Your task to perform on an android device: Open notification settings Image 0: 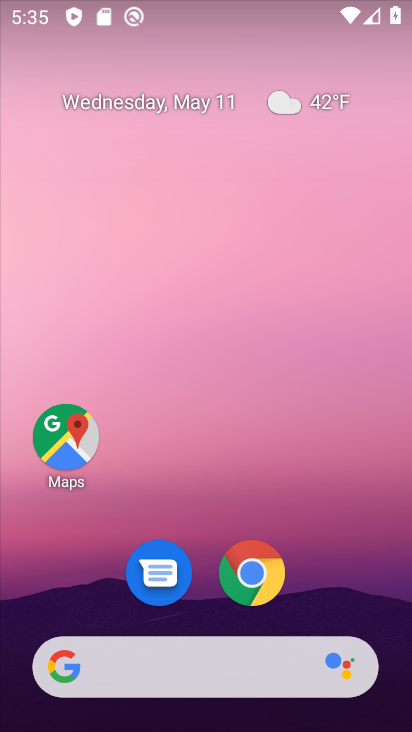
Step 0: drag from (306, 577) to (304, 144)
Your task to perform on an android device: Open notification settings Image 1: 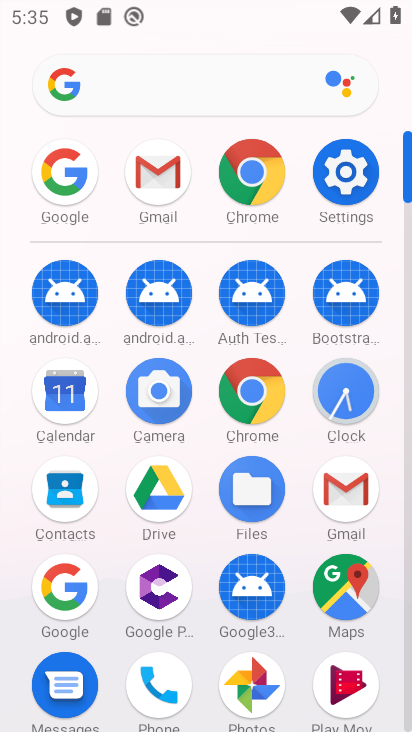
Step 1: click (359, 215)
Your task to perform on an android device: Open notification settings Image 2: 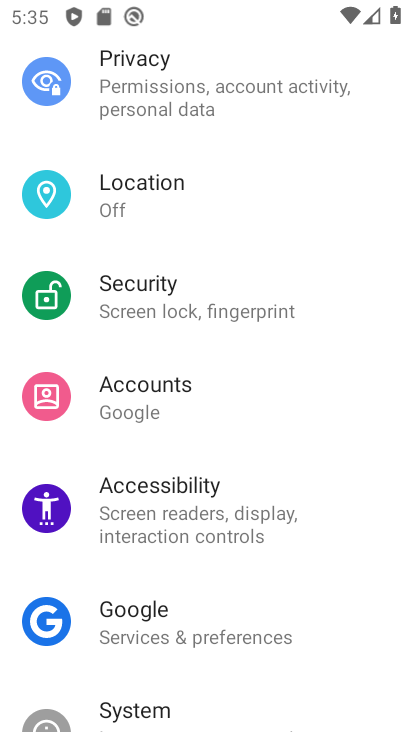
Step 2: drag from (210, 673) to (218, 335)
Your task to perform on an android device: Open notification settings Image 3: 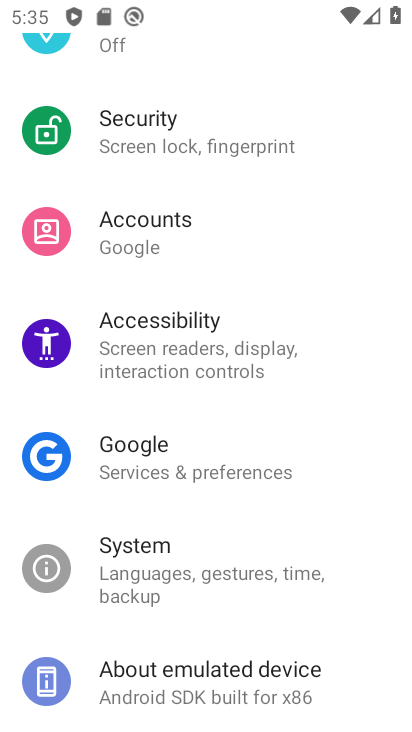
Step 3: drag from (214, 450) to (213, 660)
Your task to perform on an android device: Open notification settings Image 4: 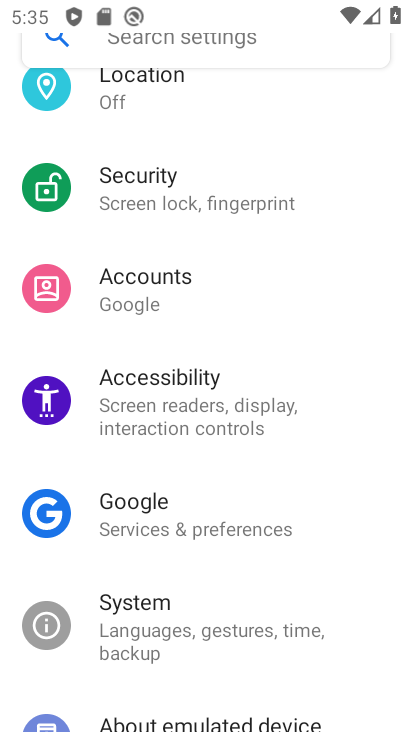
Step 4: drag from (243, 323) to (251, 627)
Your task to perform on an android device: Open notification settings Image 5: 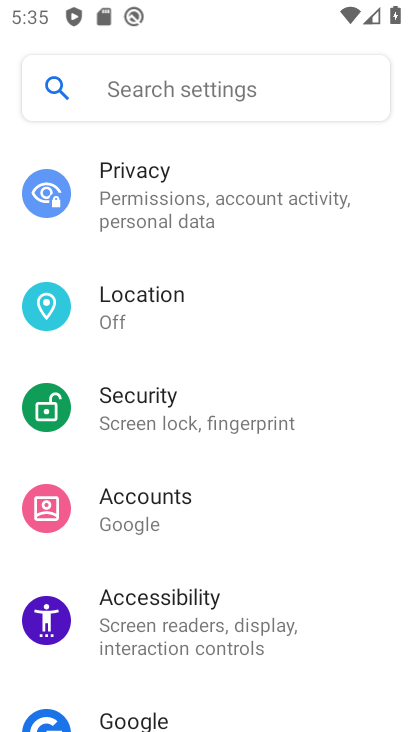
Step 5: drag from (277, 264) to (277, 655)
Your task to perform on an android device: Open notification settings Image 6: 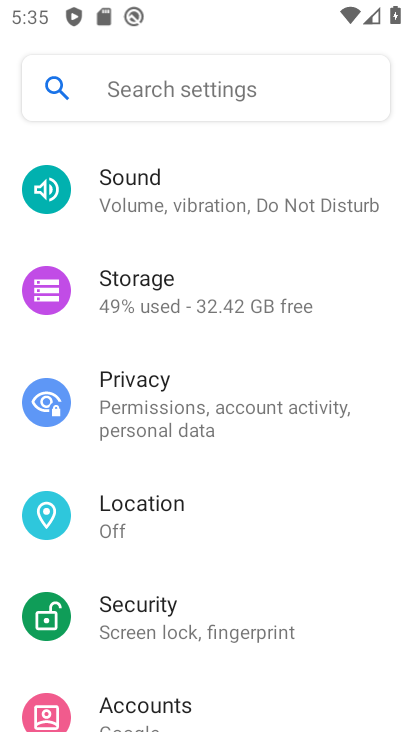
Step 6: drag from (294, 306) to (293, 667)
Your task to perform on an android device: Open notification settings Image 7: 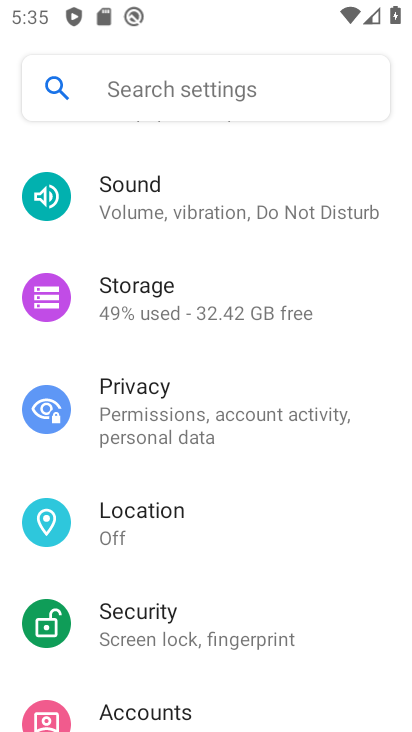
Step 7: drag from (287, 290) to (278, 664)
Your task to perform on an android device: Open notification settings Image 8: 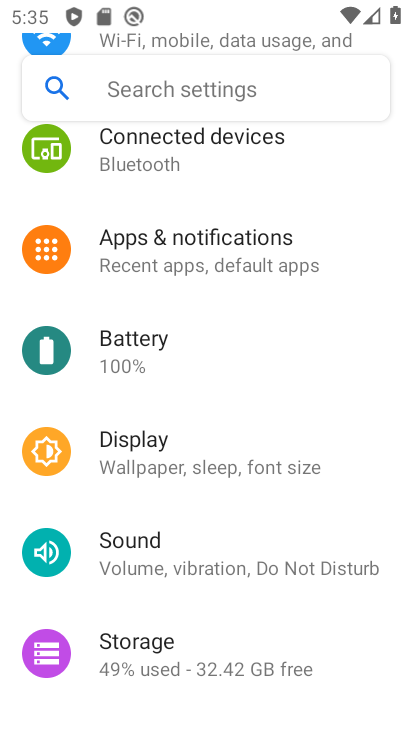
Step 8: click (196, 260)
Your task to perform on an android device: Open notification settings Image 9: 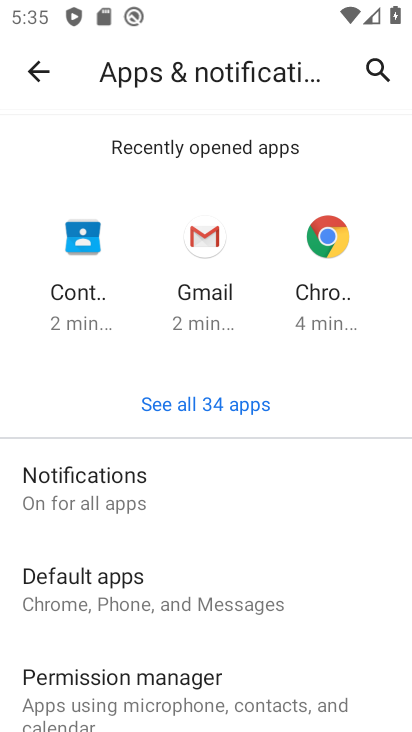
Step 9: click (99, 489)
Your task to perform on an android device: Open notification settings Image 10: 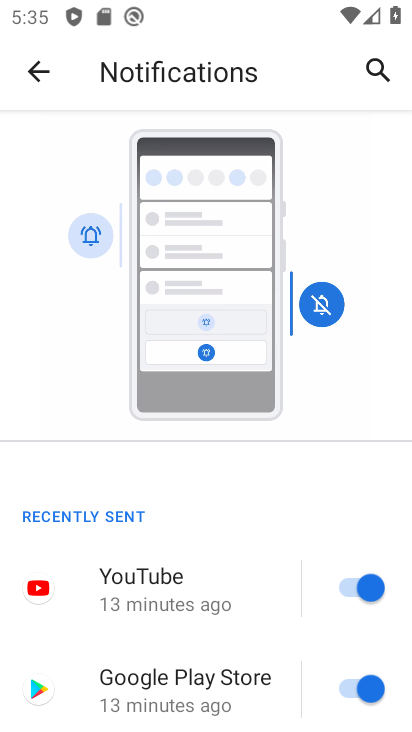
Step 10: task complete